Your task to perform on an android device: add a contact in the contacts app Image 0: 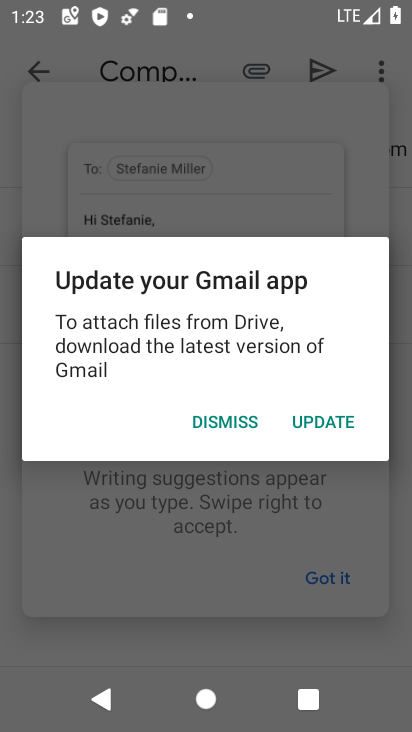
Step 0: press home button
Your task to perform on an android device: add a contact in the contacts app Image 1: 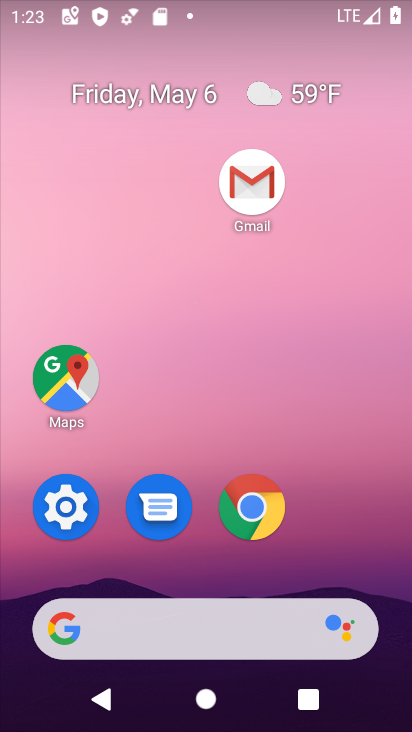
Step 1: drag from (353, 513) to (295, 251)
Your task to perform on an android device: add a contact in the contacts app Image 2: 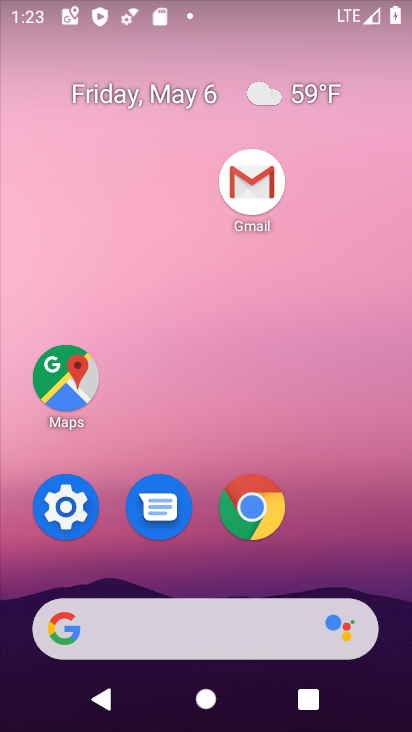
Step 2: drag from (332, 532) to (384, 53)
Your task to perform on an android device: add a contact in the contacts app Image 3: 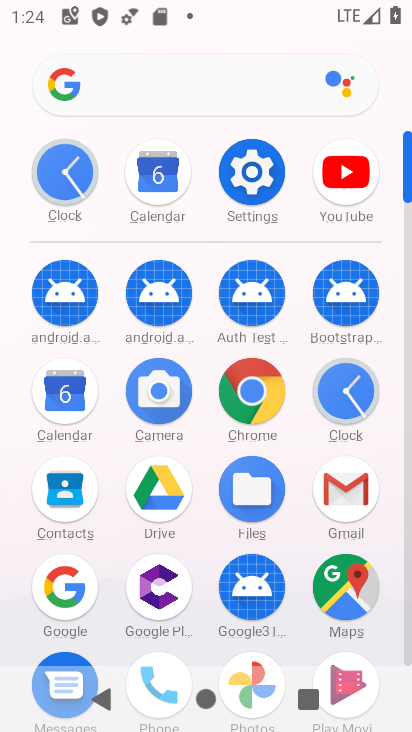
Step 3: click (72, 494)
Your task to perform on an android device: add a contact in the contacts app Image 4: 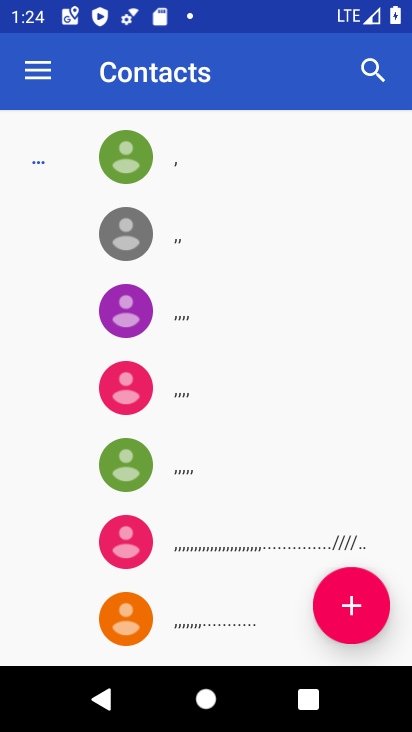
Step 4: click (345, 606)
Your task to perform on an android device: add a contact in the contacts app Image 5: 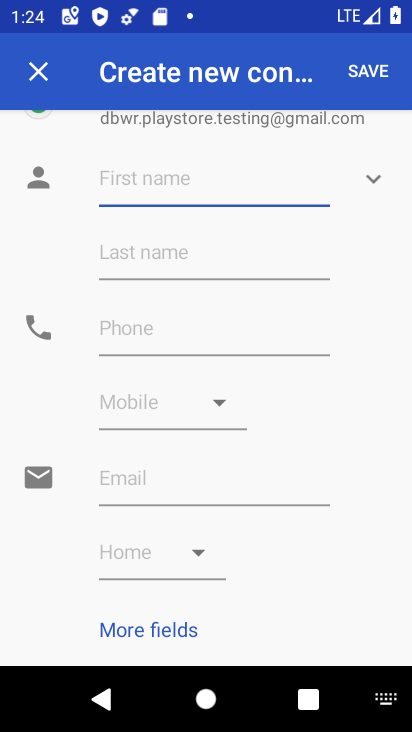
Step 5: type "jai ho"
Your task to perform on an android device: add a contact in the contacts app Image 6: 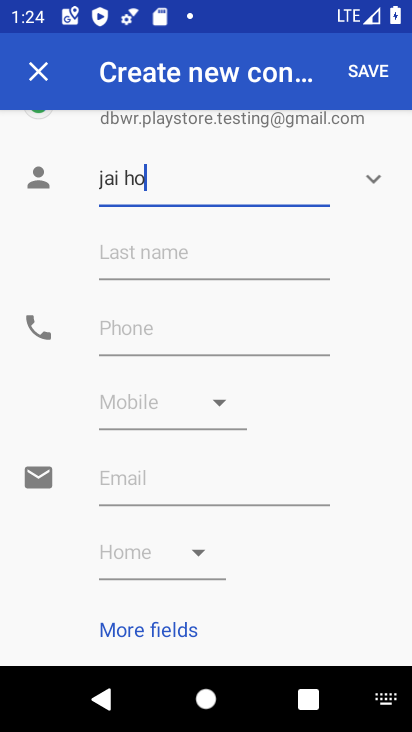
Step 6: click (151, 327)
Your task to perform on an android device: add a contact in the contacts app Image 7: 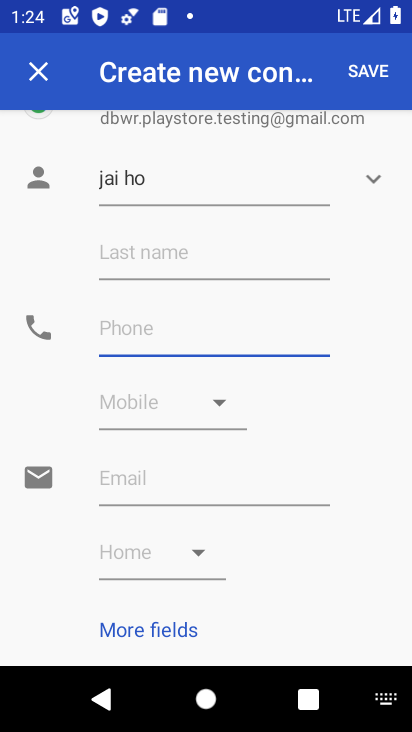
Step 7: type "657489320"
Your task to perform on an android device: add a contact in the contacts app Image 8: 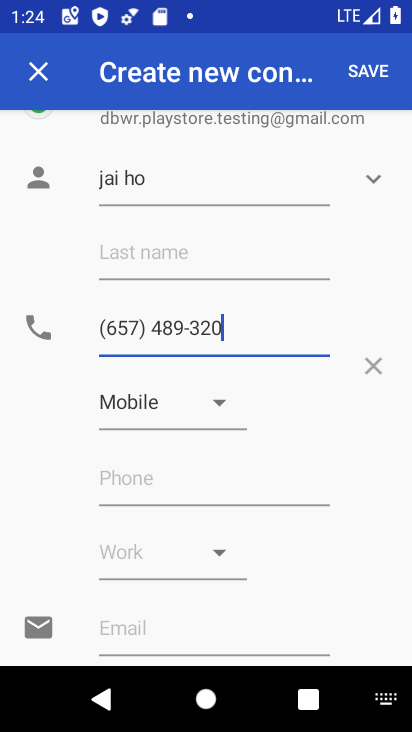
Step 8: type "6547839"
Your task to perform on an android device: add a contact in the contacts app Image 9: 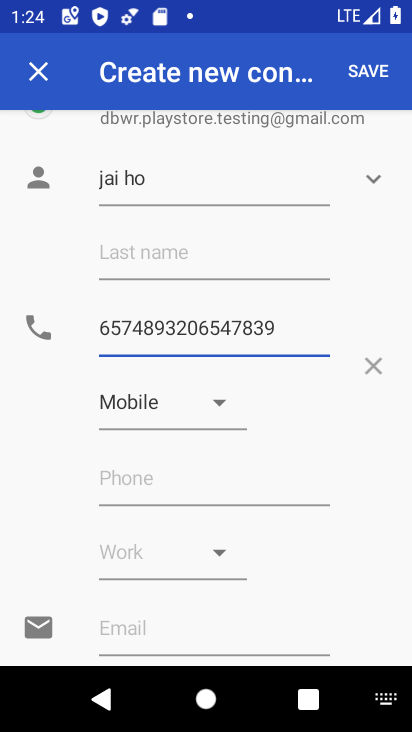
Step 9: click (373, 72)
Your task to perform on an android device: add a contact in the contacts app Image 10: 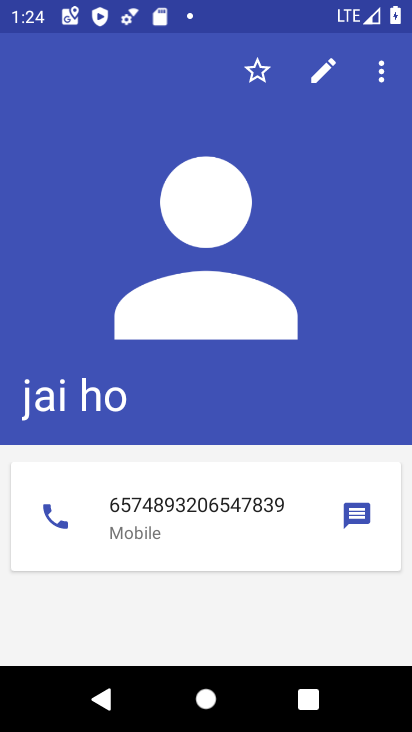
Step 10: task complete